Your task to perform on an android device: turn on sleep mode Image 0: 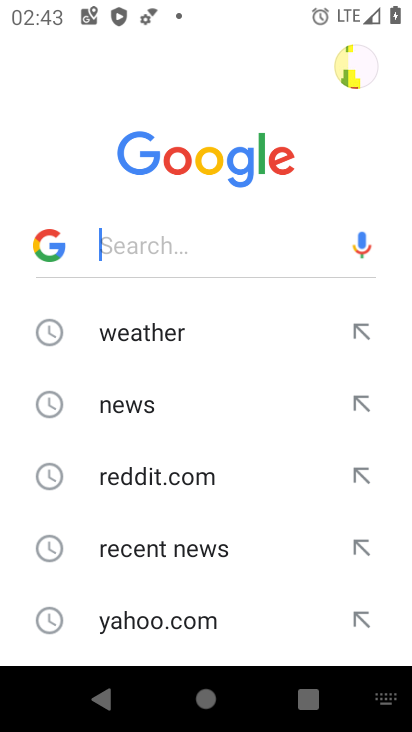
Step 0: press home button
Your task to perform on an android device: turn on sleep mode Image 1: 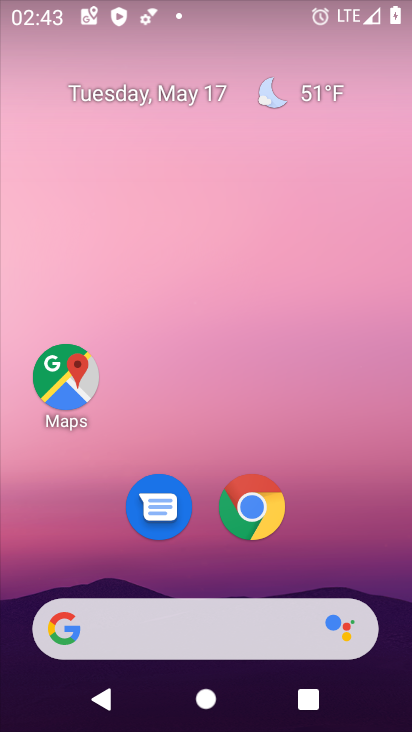
Step 1: drag from (219, 568) to (289, 44)
Your task to perform on an android device: turn on sleep mode Image 2: 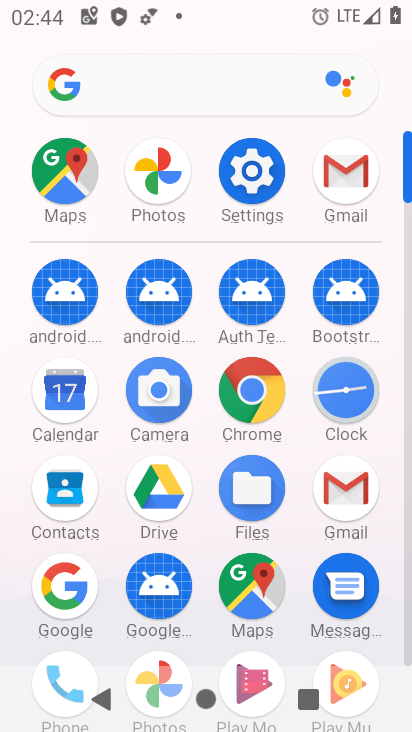
Step 2: click (259, 173)
Your task to perform on an android device: turn on sleep mode Image 3: 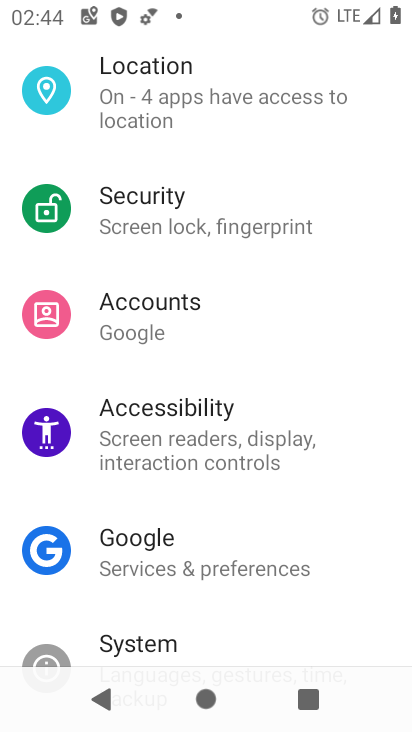
Step 3: task complete